Your task to perform on an android device: turn pop-ups on in chrome Image 0: 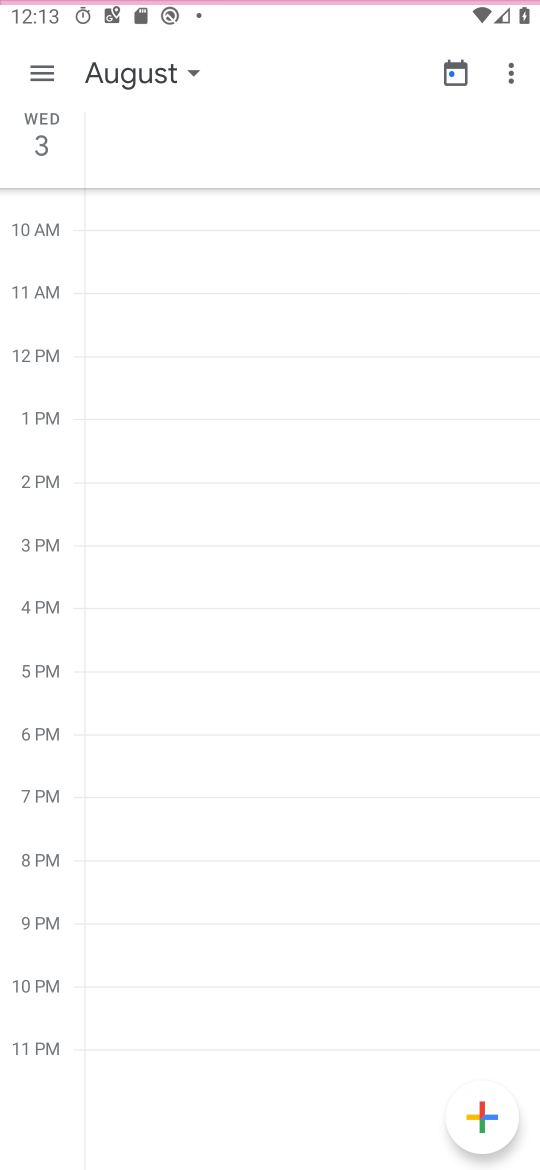
Step 0: click (33, 76)
Your task to perform on an android device: turn pop-ups on in chrome Image 1: 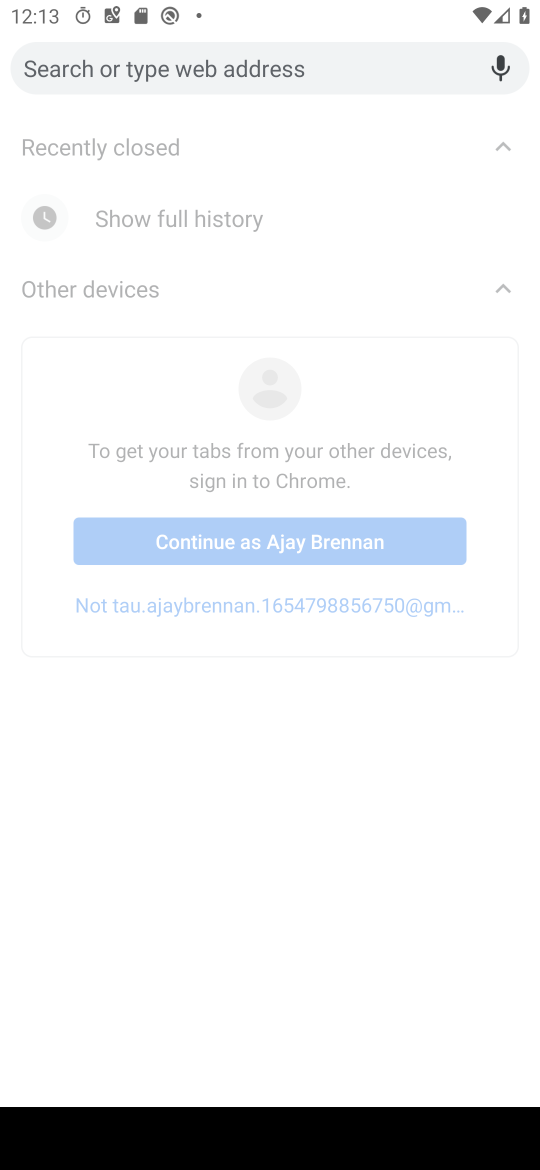
Step 1: press back button
Your task to perform on an android device: turn pop-ups on in chrome Image 2: 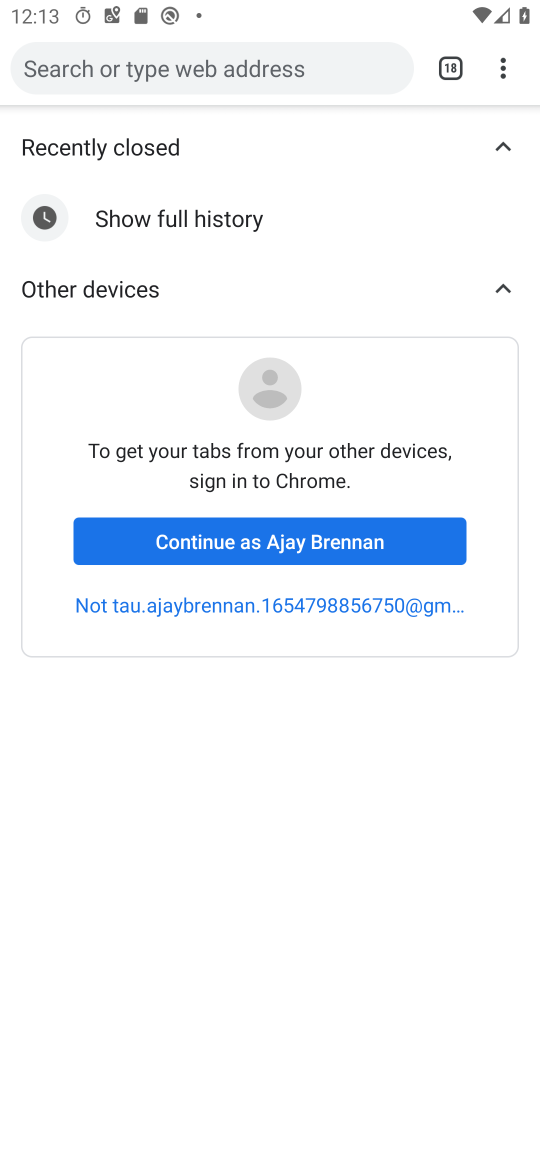
Step 2: press home button
Your task to perform on an android device: turn pop-ups on in chrome Image 3: 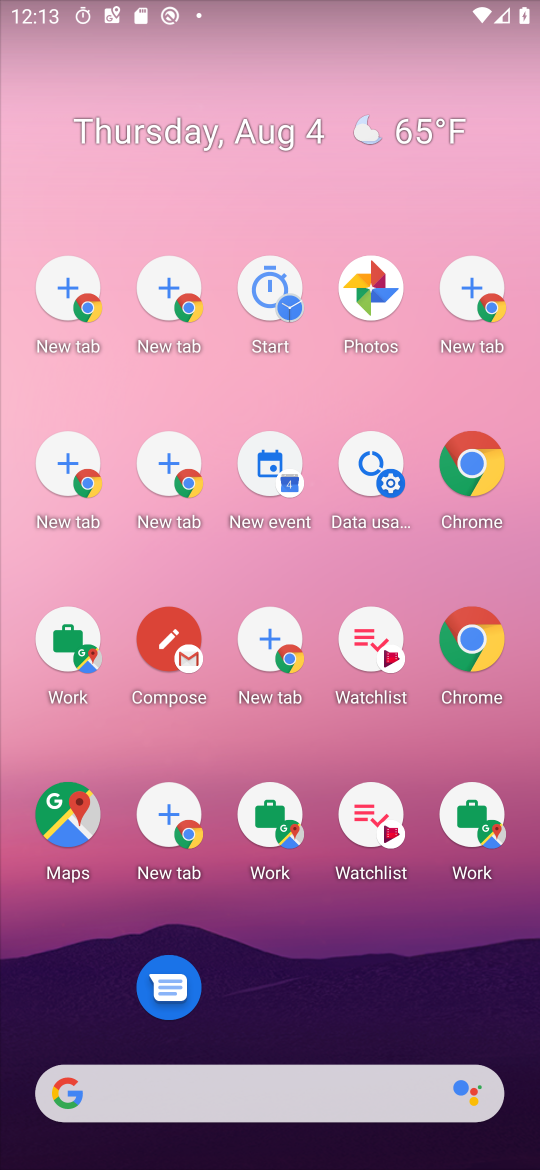
Step 3: click (471, 450)
Your task to perform on an android device: turn pop-ups on in chrome Image 4: 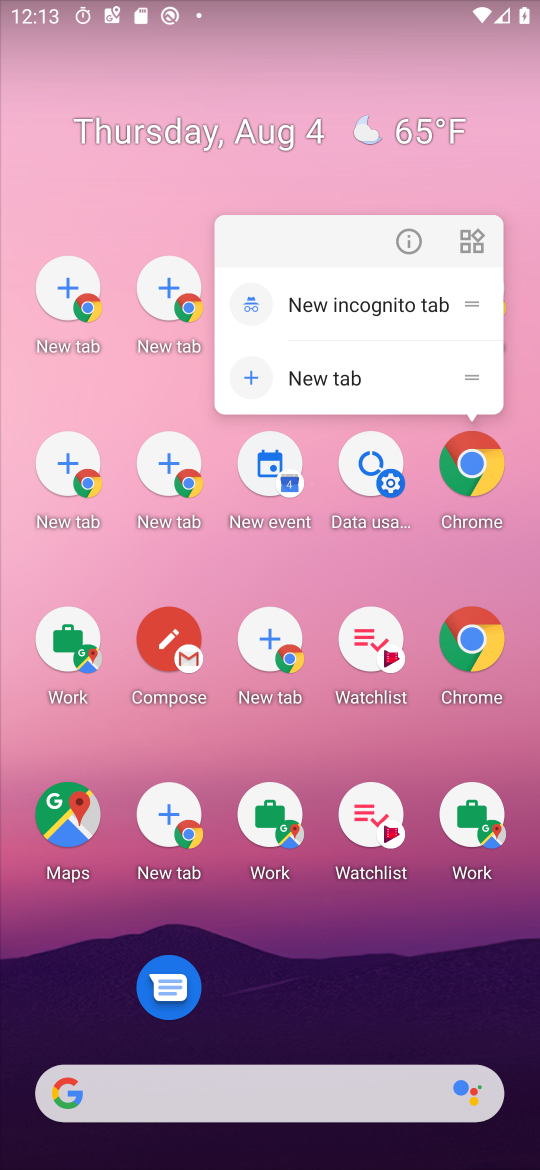
Step 4: click (405, 245)
Your task to perform on an android device: turn pop-ups on in chrome Image 5: 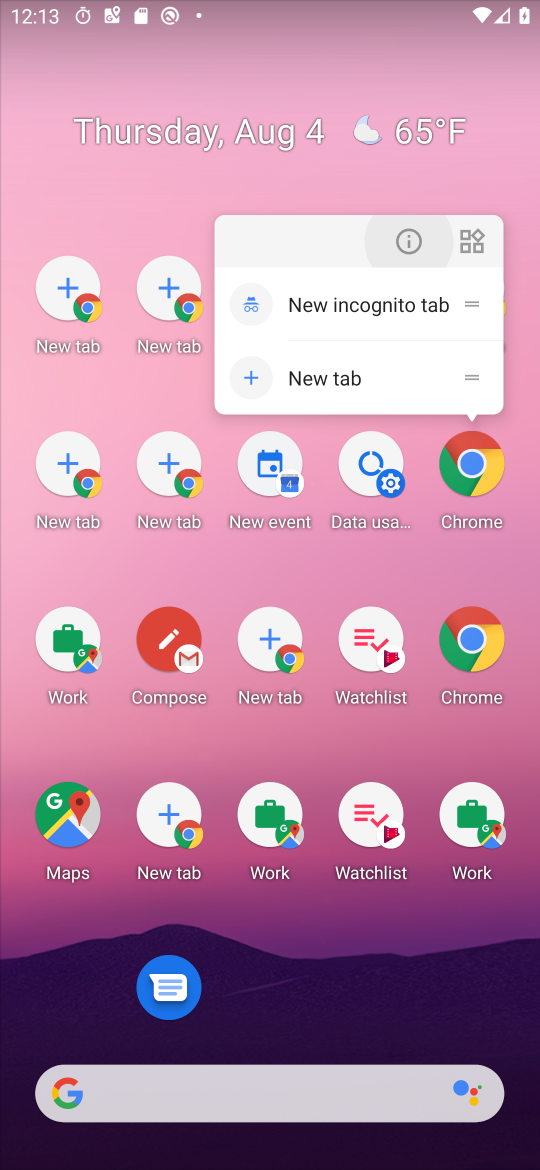
Step 5: click (483, 454)
Your task to perform on an android device: turn pop-ups on in chrome Image 6: 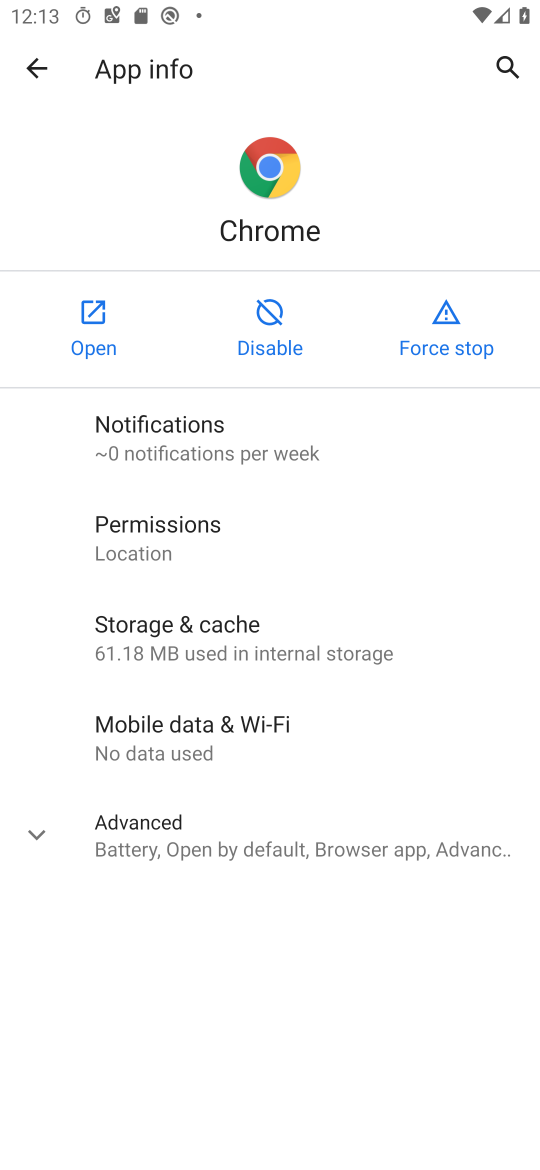
Step 6: click (37, 75)
Your task to perform on an android device: turn pop-ups on in chrome Image 7: 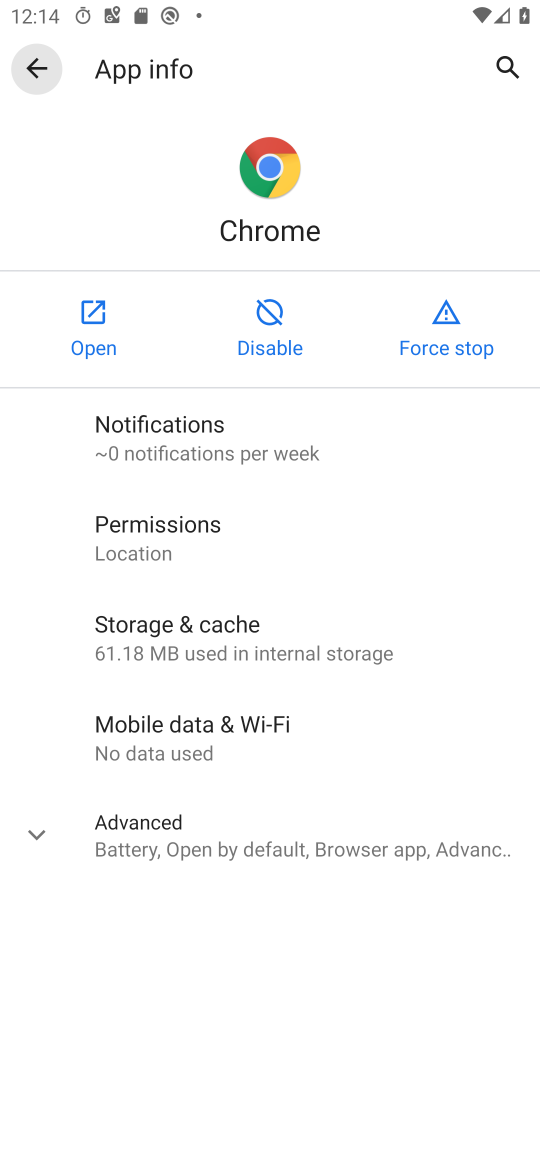
Step 7: click (42, 72)
Your task to perform on an android device: turn pop-ups on in chrome Image 8: 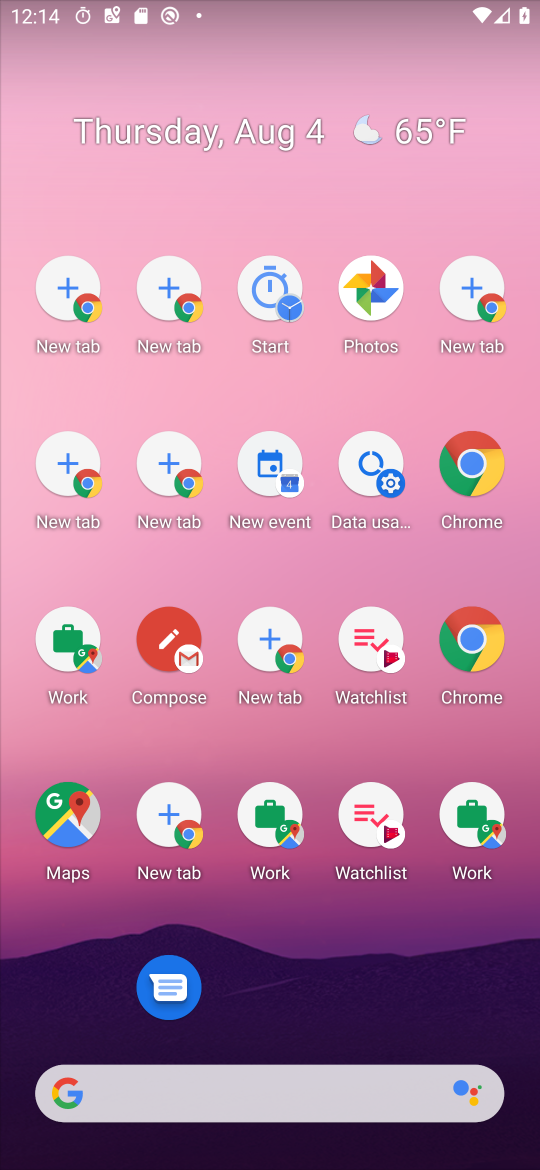
Step 8: drag from (358, 910) to (239, 240)
Your task to perform on an android device: turn pop-ups on in chrome Image 9: 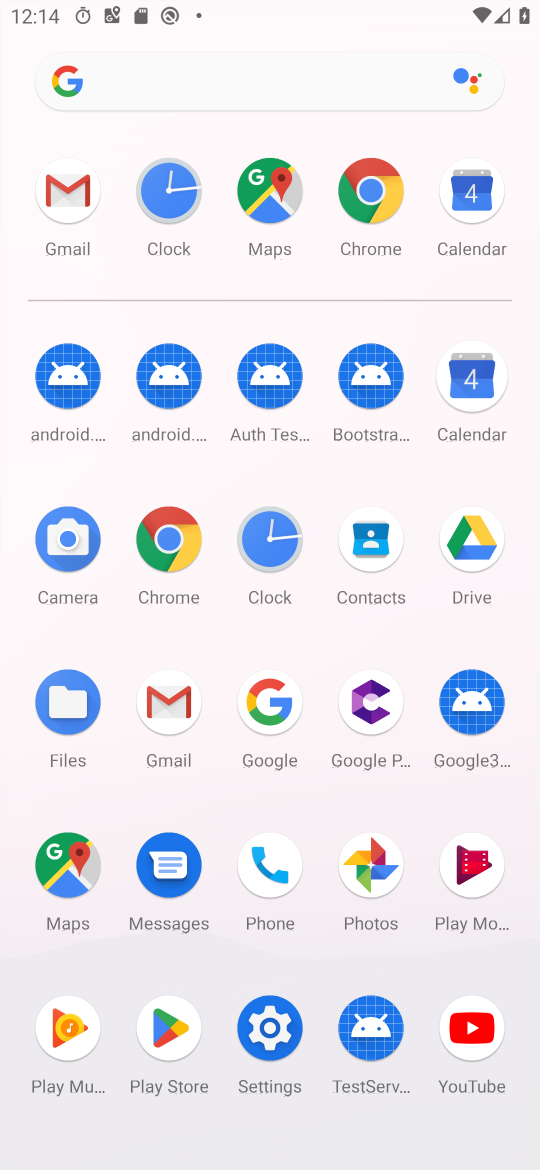
Step 9: click (359, 198)
Your task to perform on an android device: turn pop-ups on in chrome Image 10: 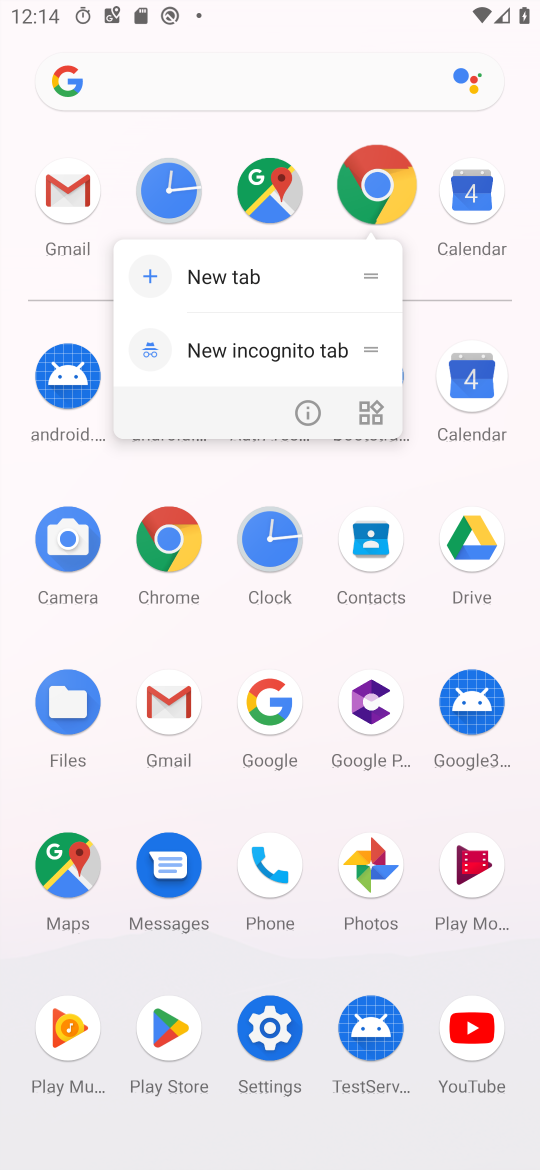
Step 10: click (365, 192)
Your task to perform on an android device: turn pop-ups on in chrome Image 11: 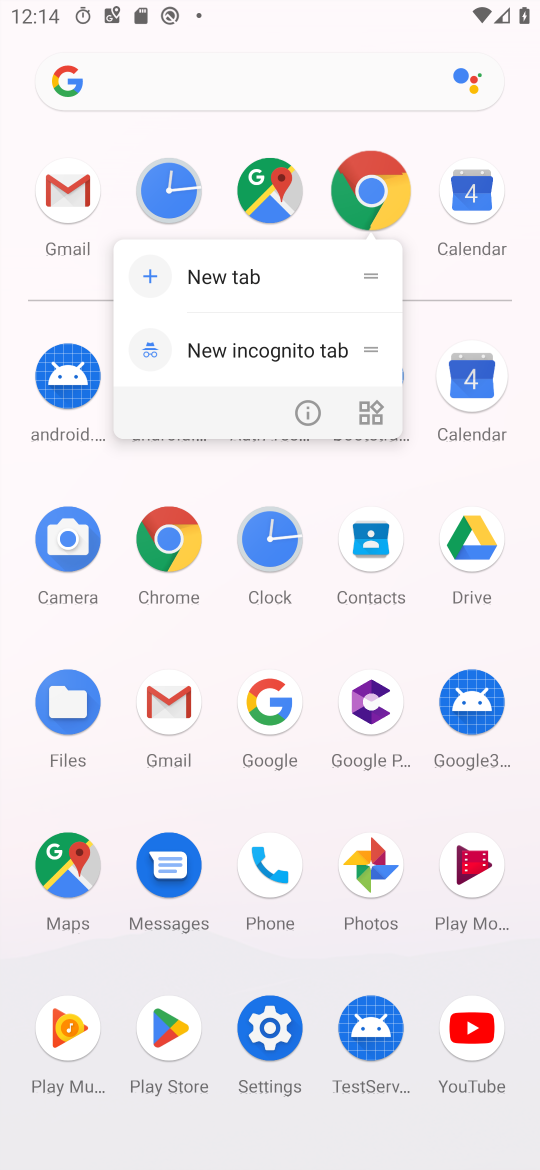
Step 11: click (370, 198)
Your task to perform on an android device: turn pop-ups on in chrome Image 12: 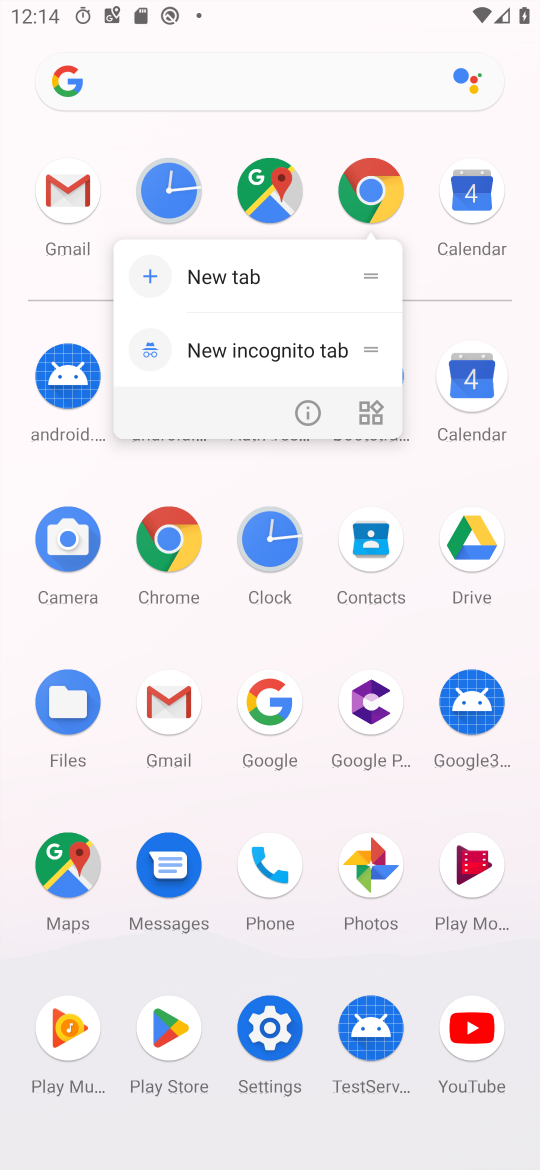
Step 12: click (196, 278)
Your task to perform on an android device: turn pop-ups on in chrome Image 13: 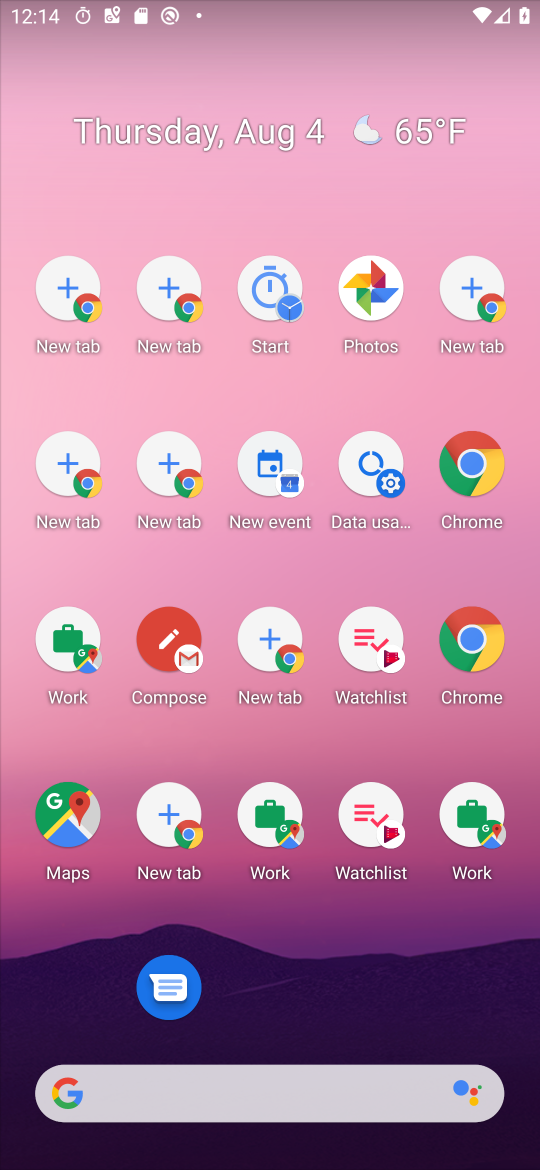
Step 13: drag from (315, 949) to (278, 183)
Your task to perform on an android device: turn pop-ups on in chrome Image 14: 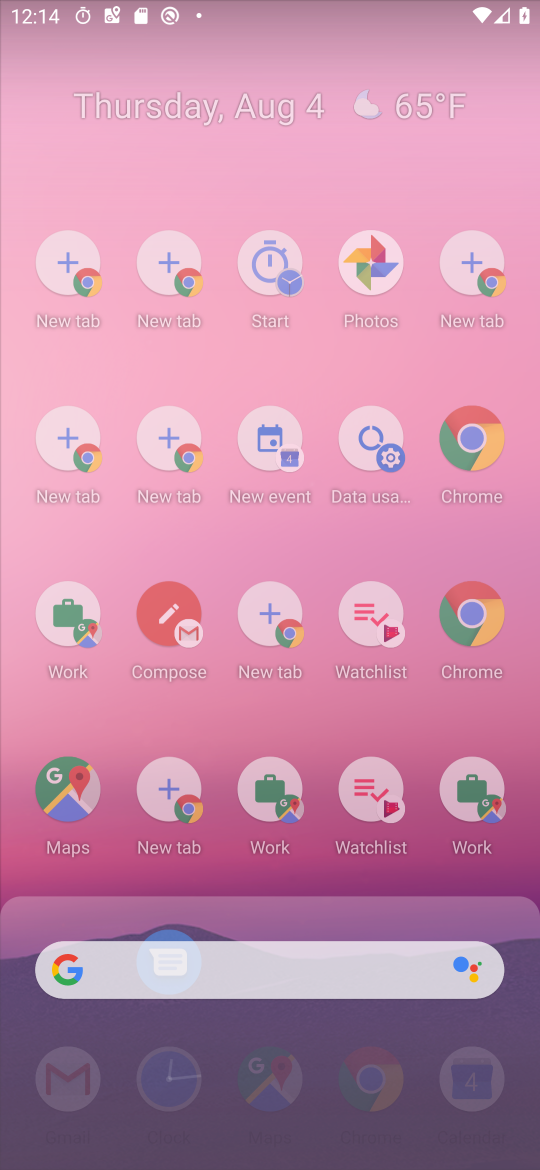
Step 14: drag from (335, 797) to (284, 250)
Your task to perform on an android device: turn pop-ups on in chrome Image 15: 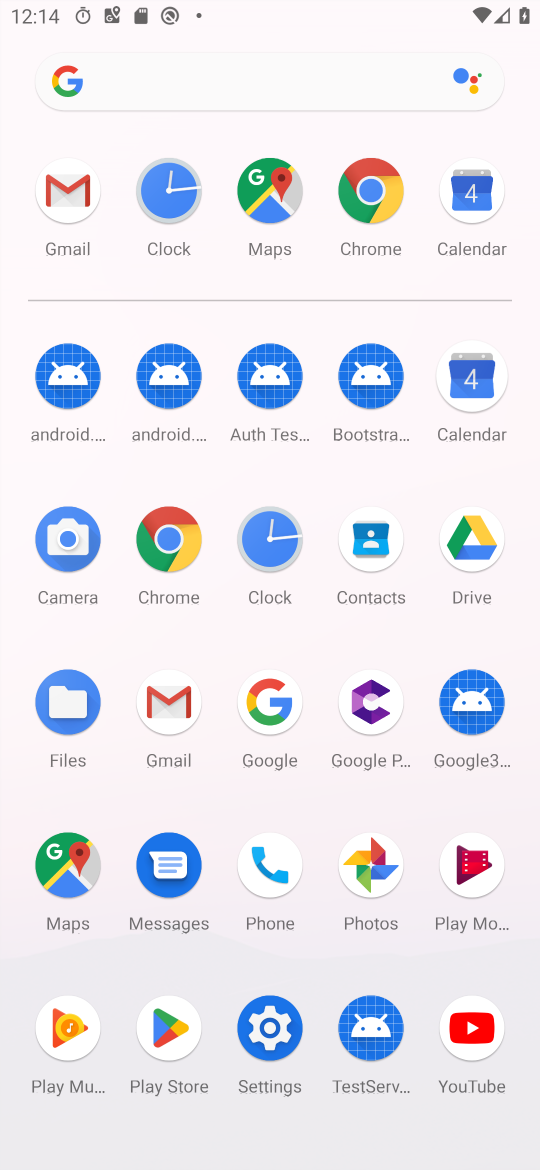
Step 15: click (376, 185)
Your task to perform on an android device: turn pop-ups on in chrome Image 16: 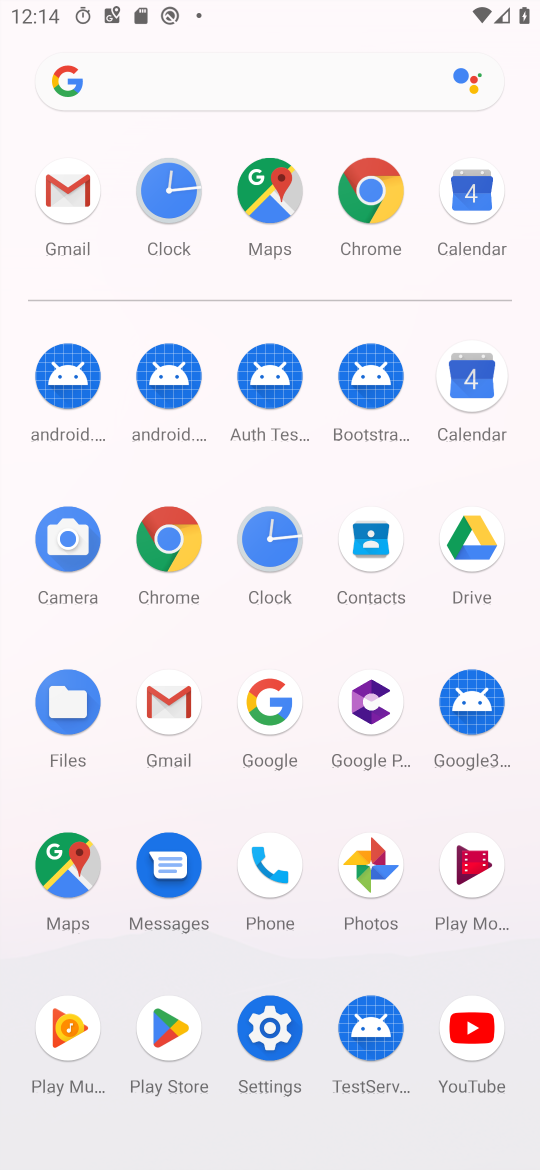
Step 16: click (372, 184)
Your task to perform on an android device: turn pop-ups on in chrome Image 17: 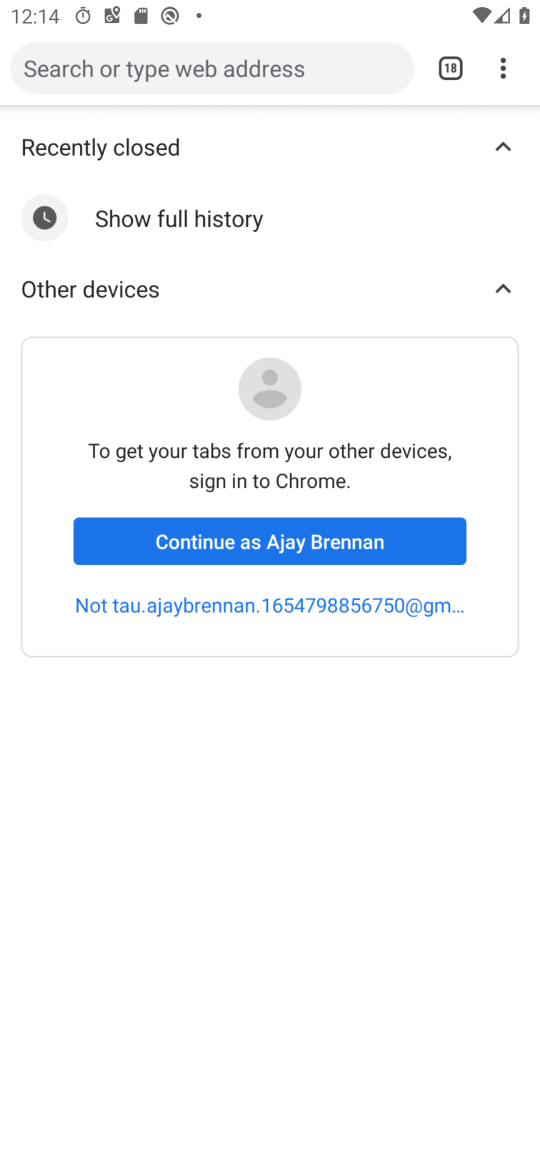
Step 17: click (372, 186)
Your task to perform on an android device: turn pop-ups on in chrome Image 18: 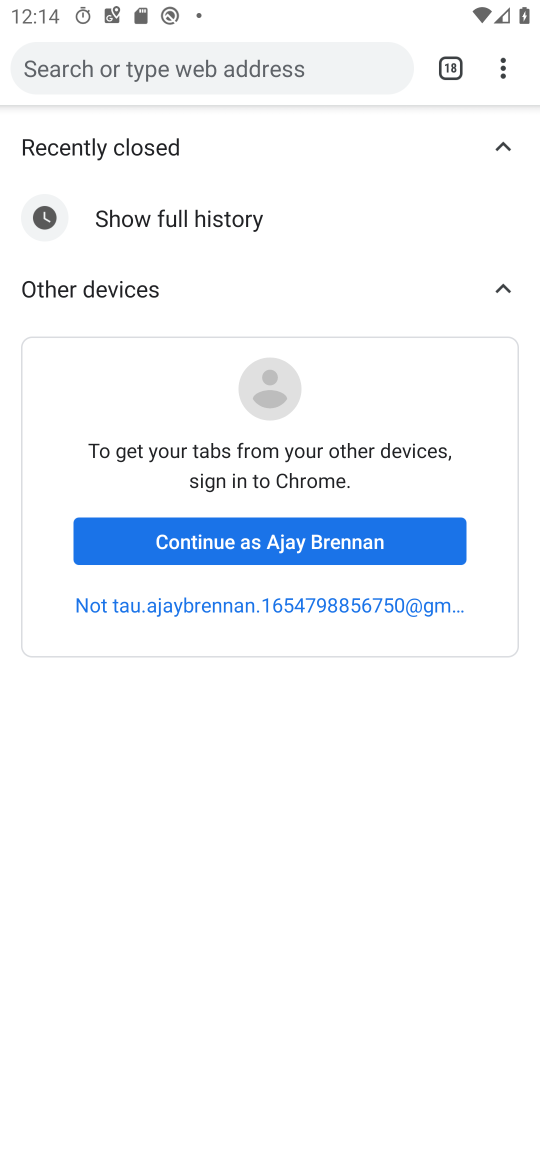
Step 18: drag from (493, 67) to (270, 586)
Your task to perform on an android device: turn pop-ups on in chrome Image 19: 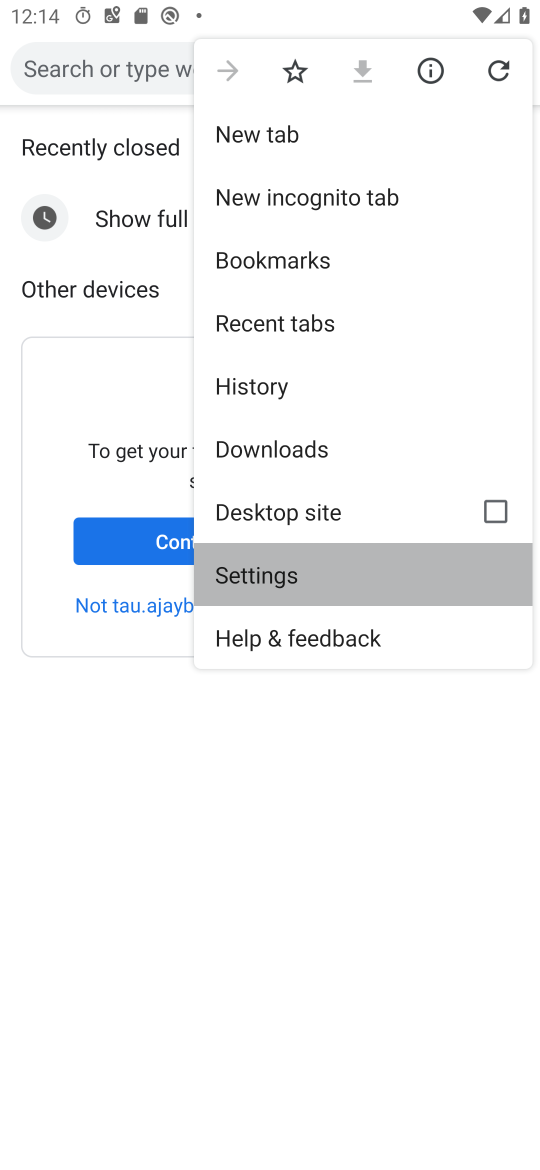
Step 19: click (272, 587)
Your task to perform on an android device: turn pop-ups on in chrome Image 20: 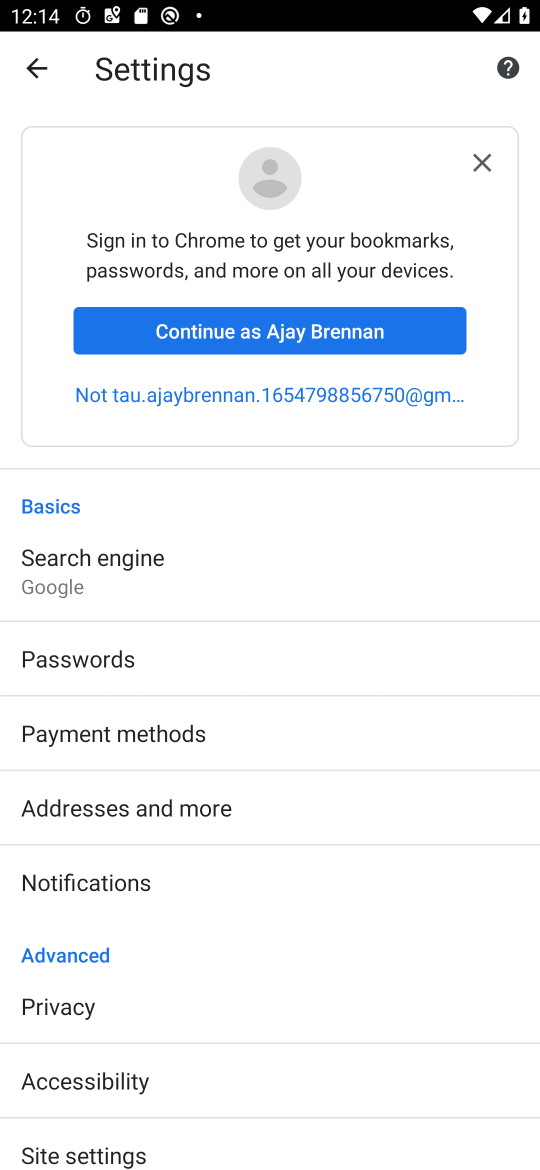
Step 20: drag from (180, 857) to (203, 327)
Your task to perform on an android device: turn pop-ups on in chrome Image 21: 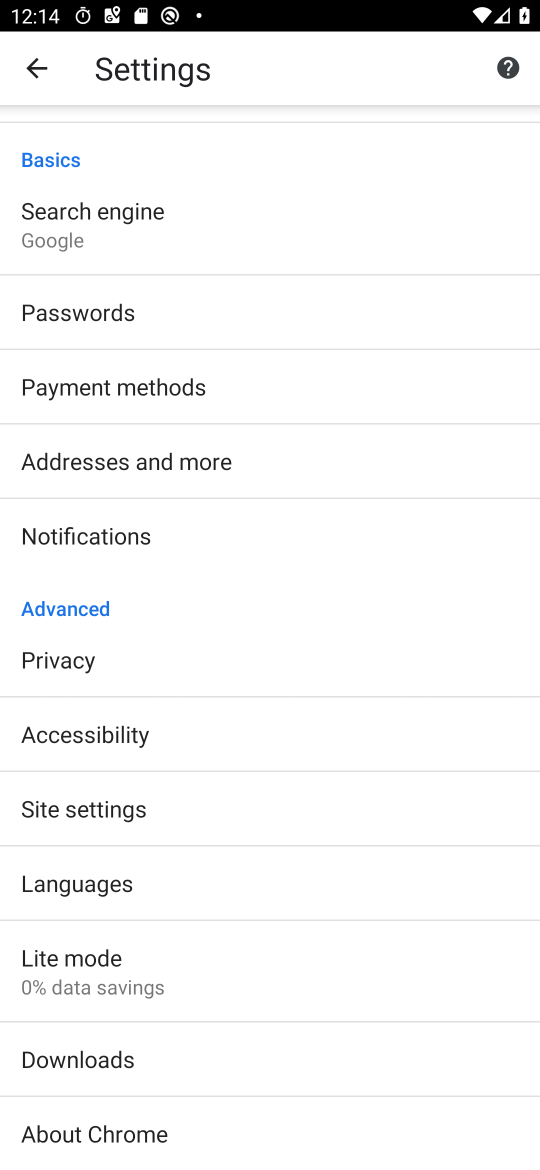
Step 21: click (84, 801)
Your task to perform on an android device: turn pop-ups on in chrome Image 22: 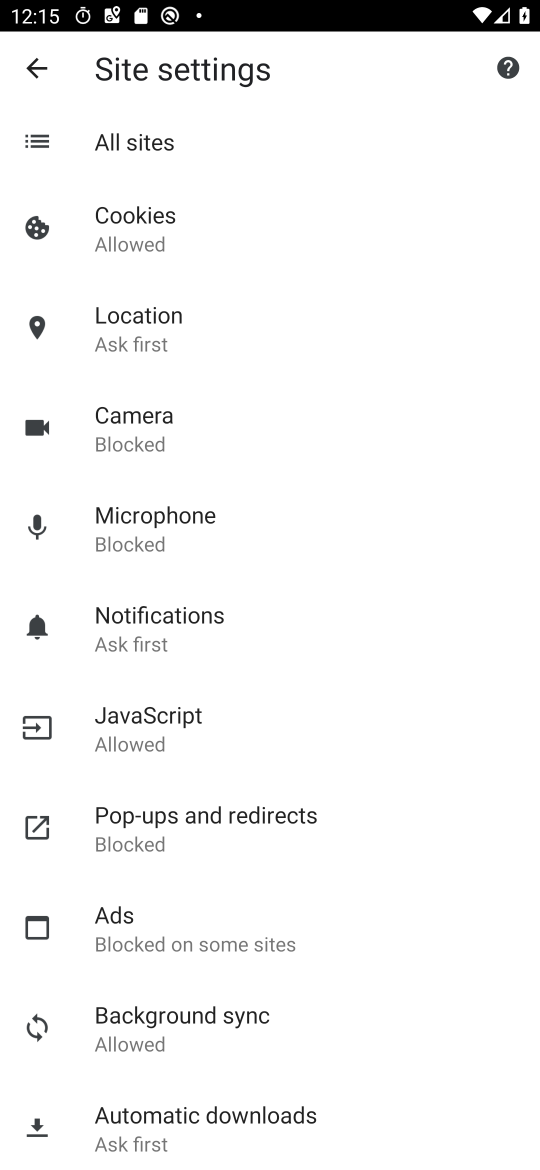
Step 22: click (199, 832)
Your task to perform on an android device: turn pop-ups on in chrome Image 23: 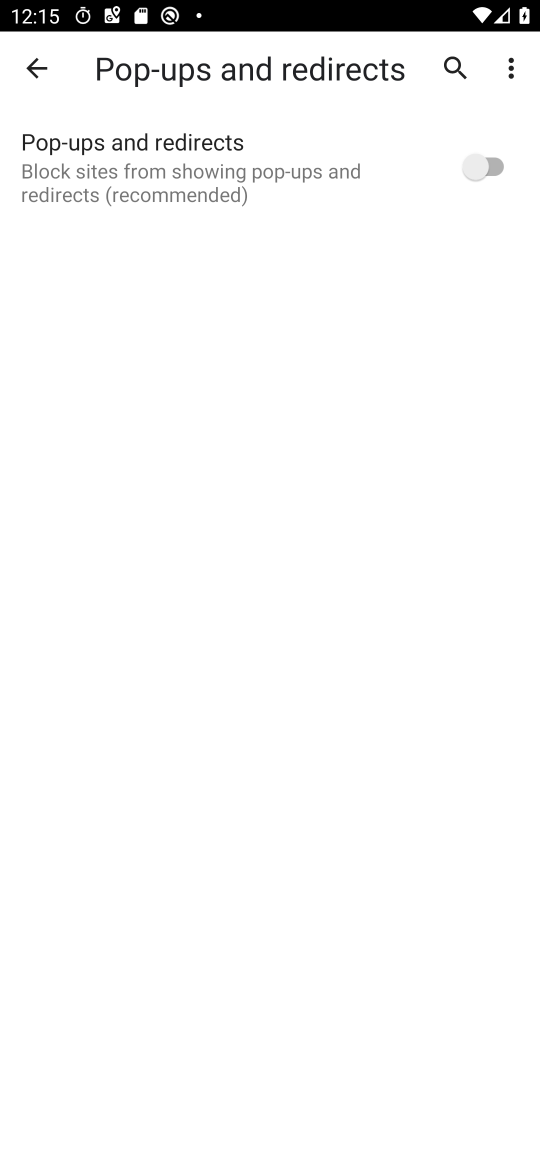
Step 23: click (467, 158)
Your task to perform on an android device: turn pop-ups on in chrome Image 24: 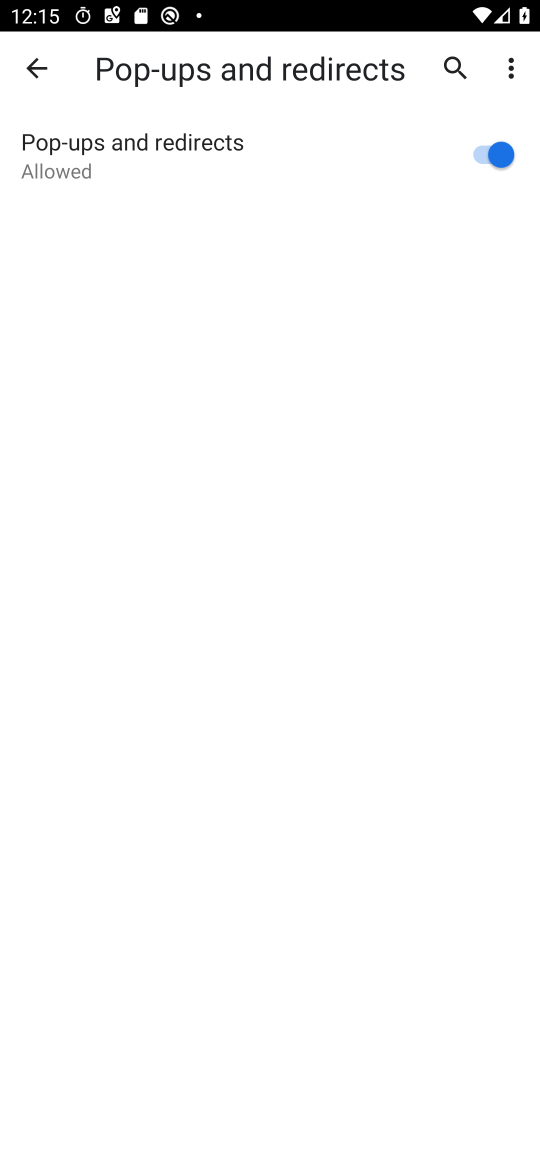
Step 24: task complete